Your task to perform on an android device: Open sound settings Image 0: 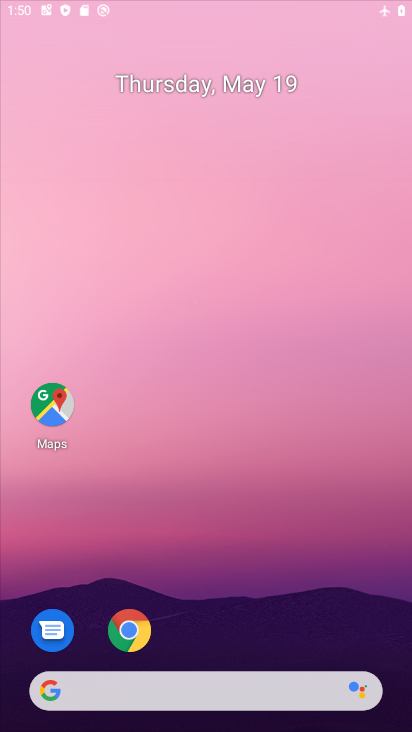
Step 0: drag from (201, 595) to (219, 34)
Your task to perform on an android device: Open sound settings Image 1: 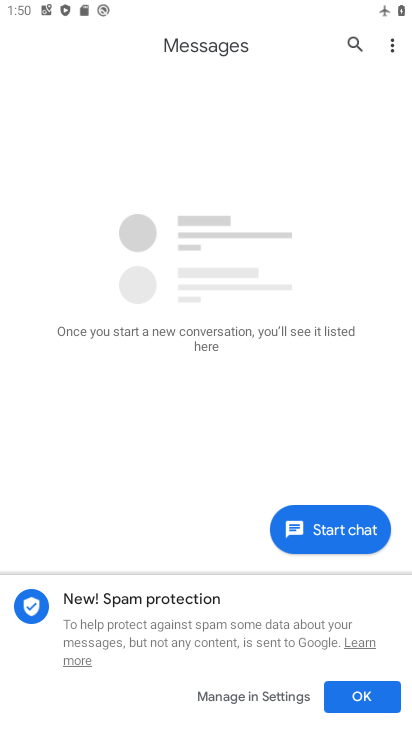
Step 1: press home button
Your task to perform on an android device: Open sound settings Image 2: 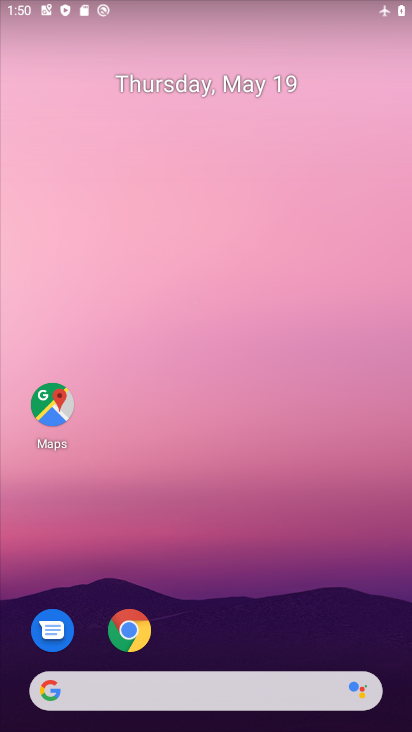
Step 2: drag from (209, 665) to (143, 35)
Your task to perform on an android device: Open sound settings Image 3: 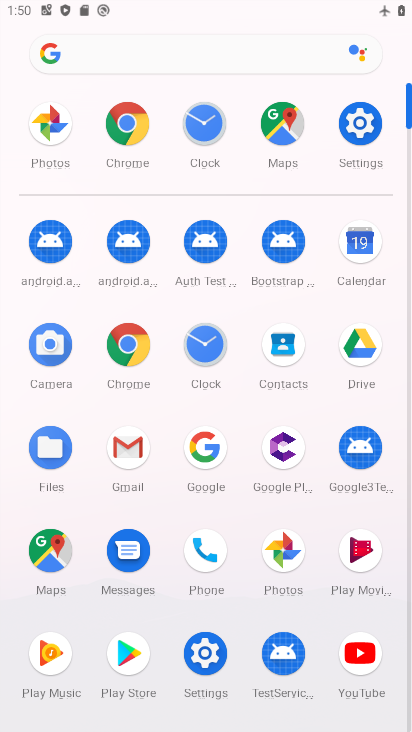
Step 3: click (364, 132)
Your task to perform on an android device: Open sound settings Image 4: 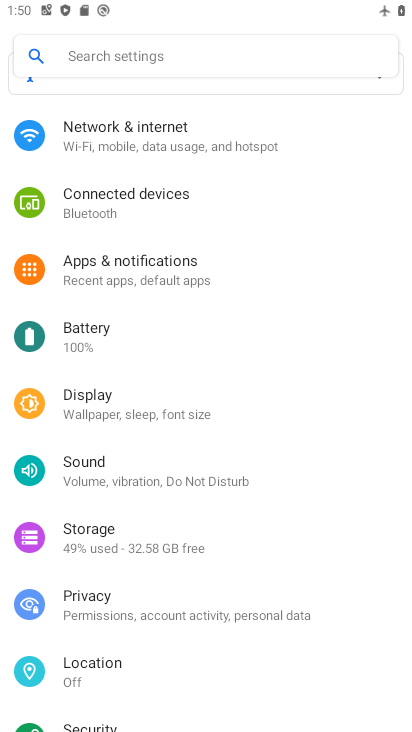
Step 4: click (96, 487)
Your task to perform on an android device: Open sound settings Image 5: 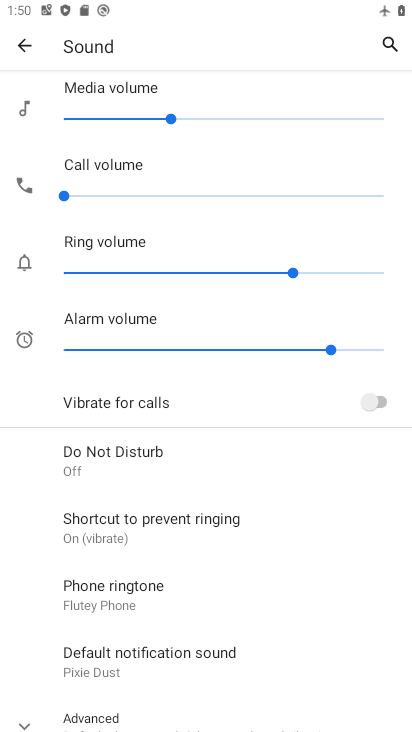
Step 5: task complete